Your task to perform on an android device: change alarm snooze length Image 0: 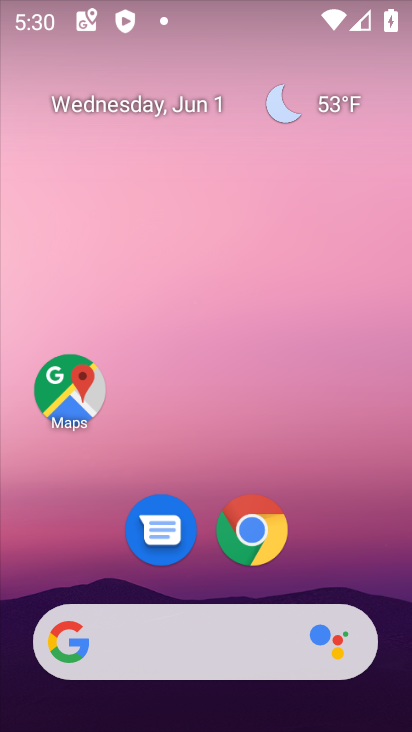
Step 0: drag from (219, 590) to (219, 48)
Your task to perform on an android device: change alarm snooze length Image 1: 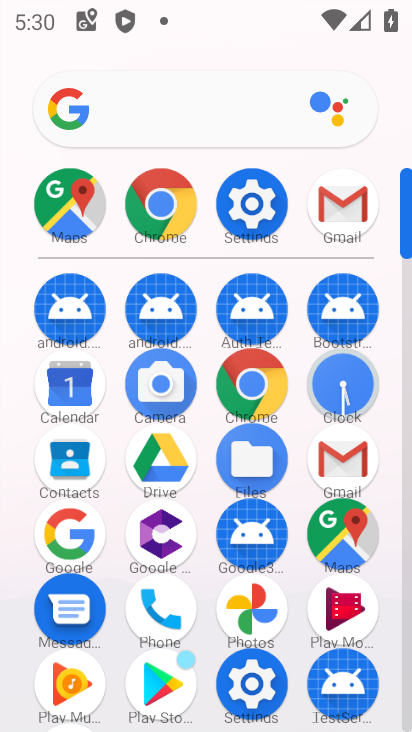
Step 1: click (329, 398)
Your task to perform on an android device: change alarm snooze length Image 2: 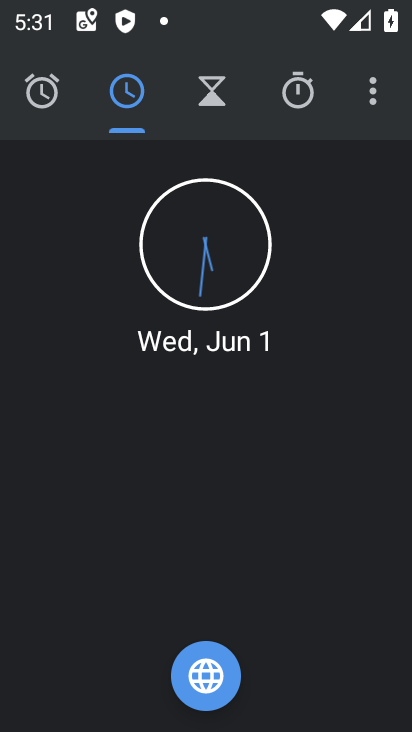
Step 2: click (382, 101)
Your task to perform on an android device: change alarm snooze length Image 3: 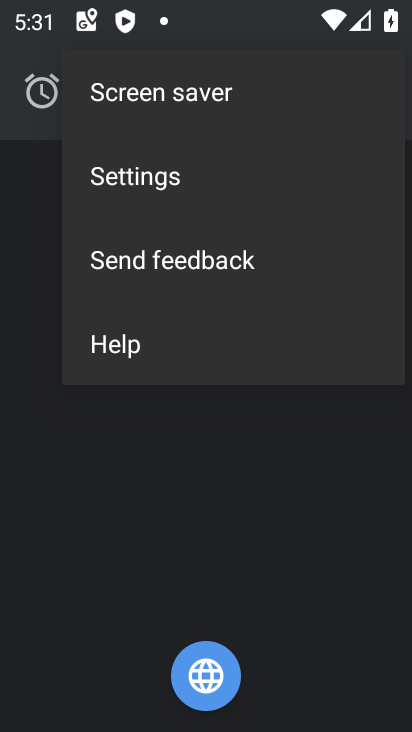
Step 3: click (181, 181)
Your task to perform on an android device: change alarm snooze length Image 4: 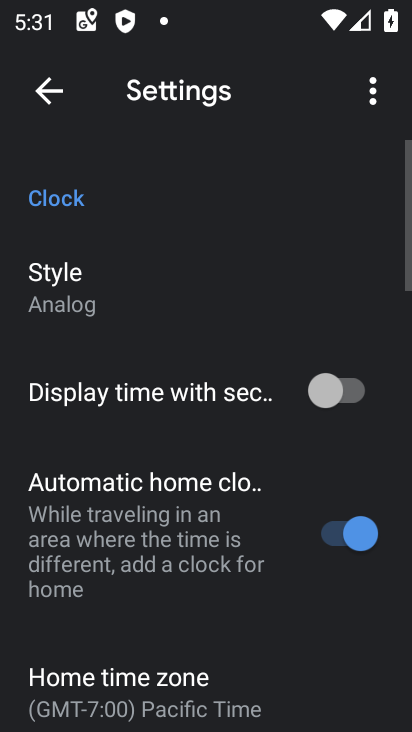
Step 4: click (224, 327)
Your task to perform on an android device: change alarm snooze length Image 5: 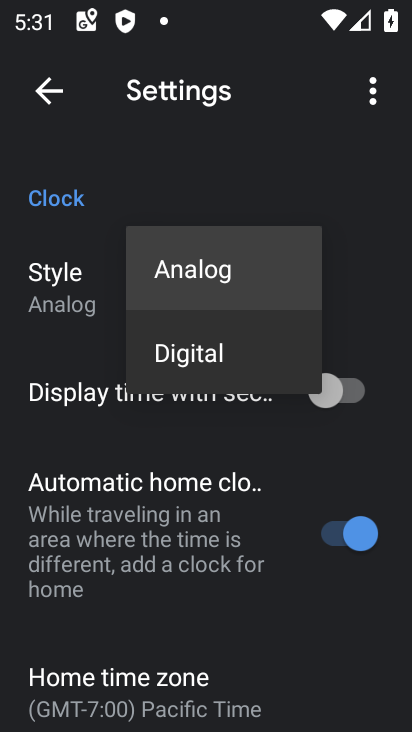
Step 5: click (244, 574)
Your task to perform on an android device: change alarm snooze length Image 6: 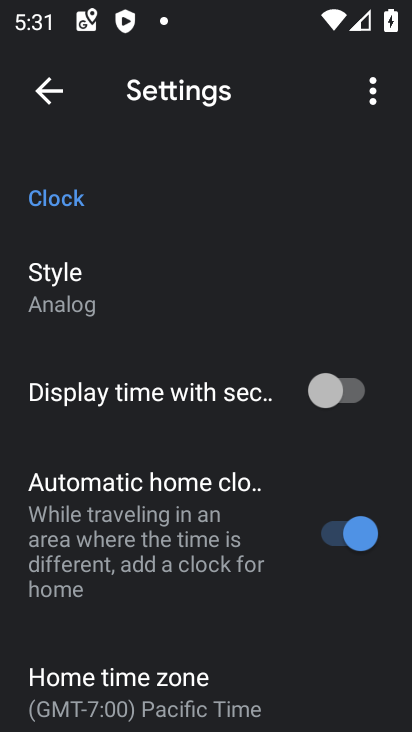
Step 6: drag from (222, 663) to (213, 354)
Your task to perform on an android device: change alarm snooze length Image 7: 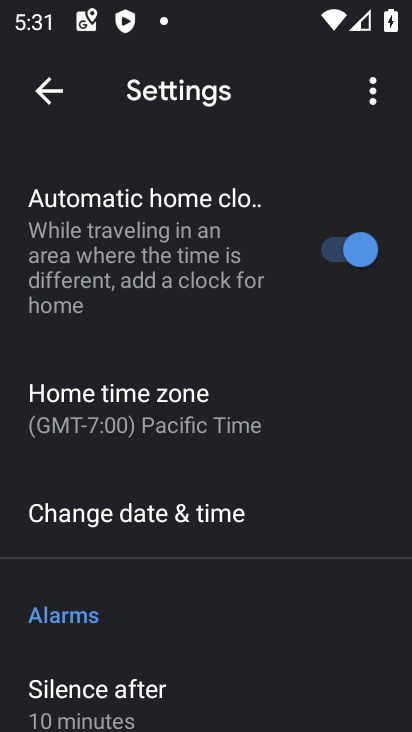
Step 7: drag from (203, 660) to (202, 439)
Your task to perform on an android device: change alarm snooze length Image 8: 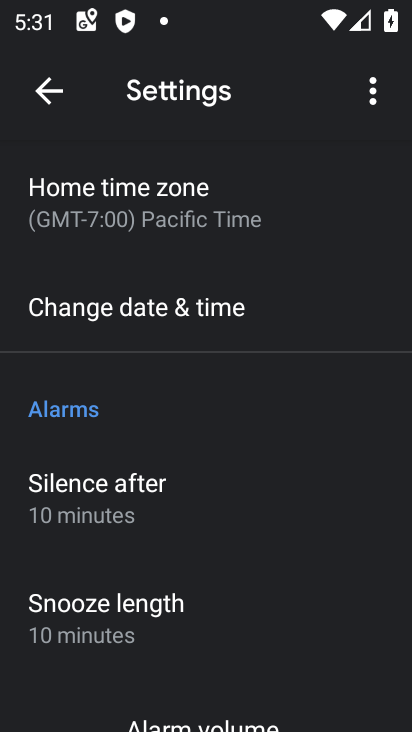
Step 8: click (128, 631)
Your task to perform on an android device: change alarm snooze length Image 9: 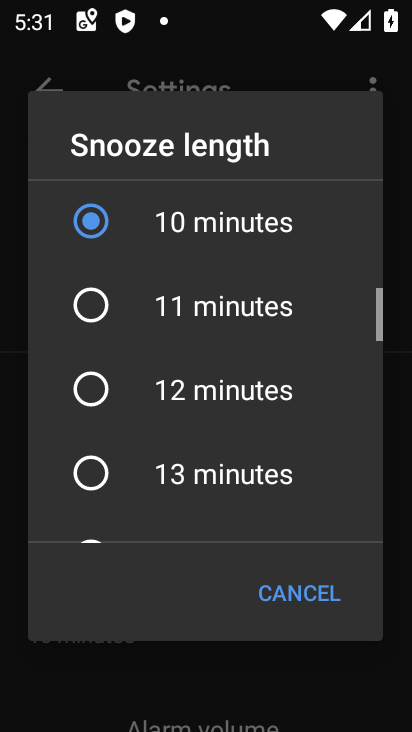
Step 9: click (94, 485)
Your task to perform on an android device: change alarm snooze length Image 10: 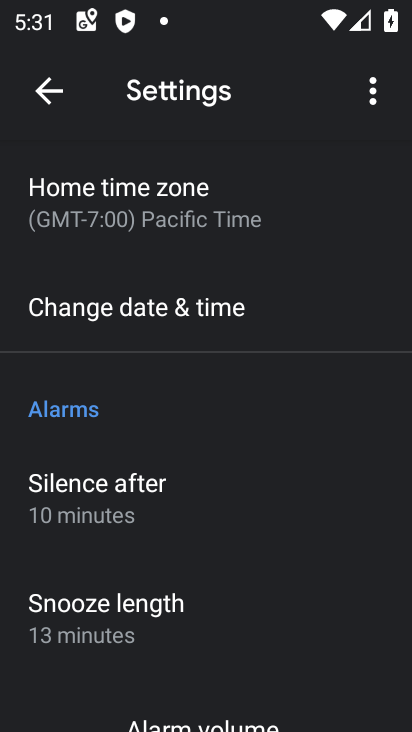
Step 10: task complete